Your task to perform on an android device: Open Wikipedia Image 0: 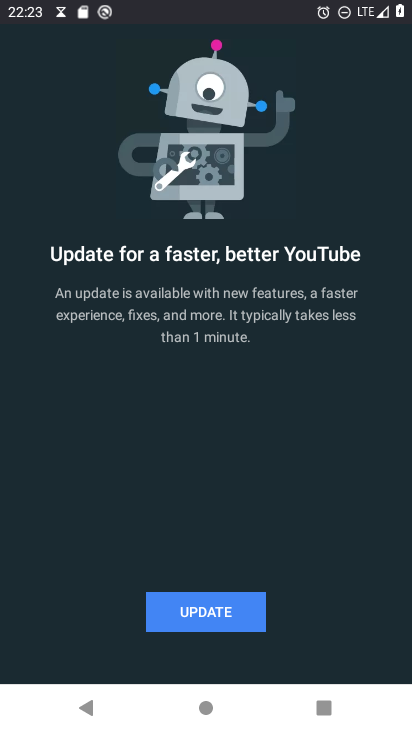
Step 0: press home button
Your task to perform on an android device: Open Wikipedia Image 1: 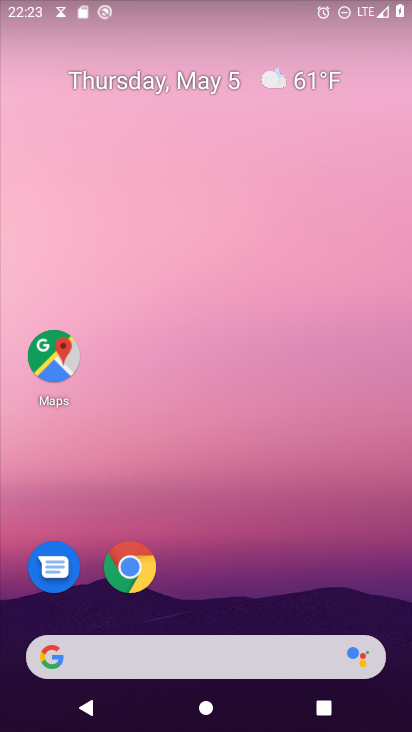
Step 1: click (133, 565)
Your task to perform on an android device: Open Wikipedia Image 2: 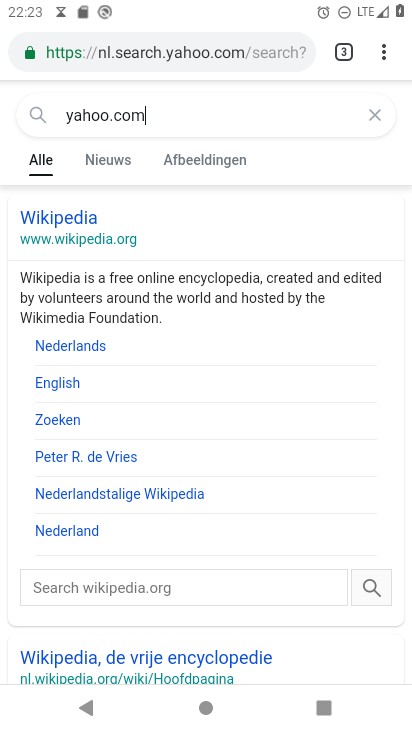
Step 2: click (100, 113)
Your task to perform on an android device: Open Wikipedia Image 3: 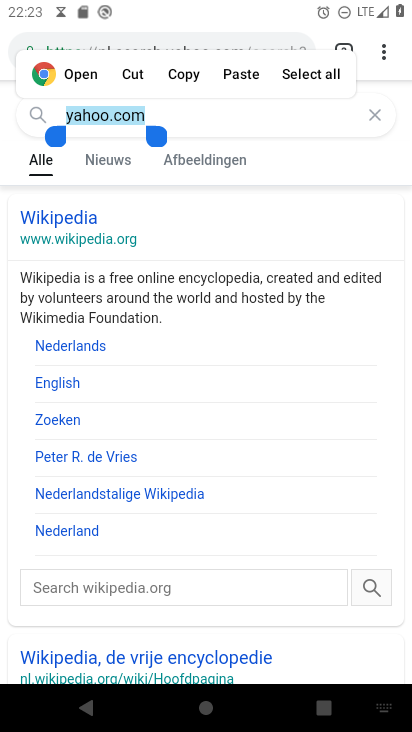
Step 3: click (128, 73)
Your task to perform on an android device: Open Wikipedia Image 4: 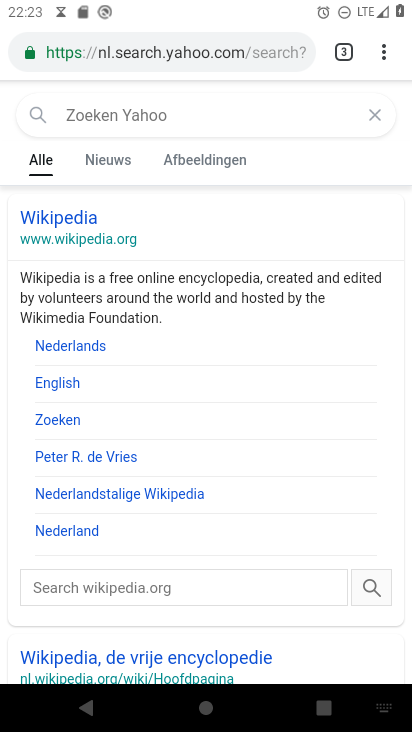
Step 4: click (125, 110)
Your task to perform on an android device: Open Wikipedia Image 5: 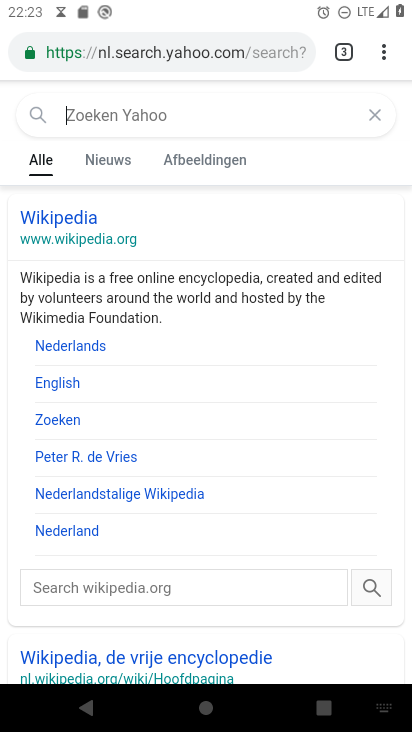
Step 5: type "wikipedia"
Your task to perform on an android device: Open Wikipedia Image 6: 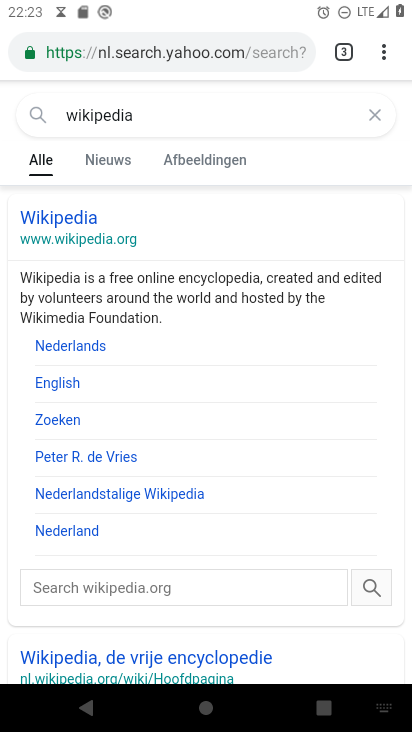
Step 6: click (41, 217)
Your task to perform on an android device: Open Wikipedia Image 7: 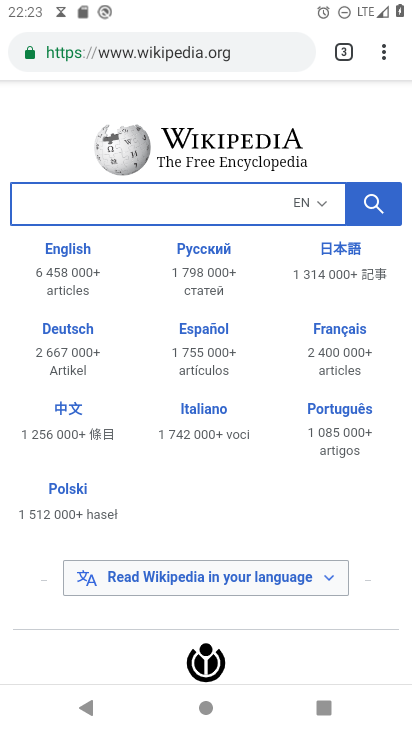
Step 7: task complete